Your task to perform on an android device: allow notifications from all sites in the chrome app Image 0: 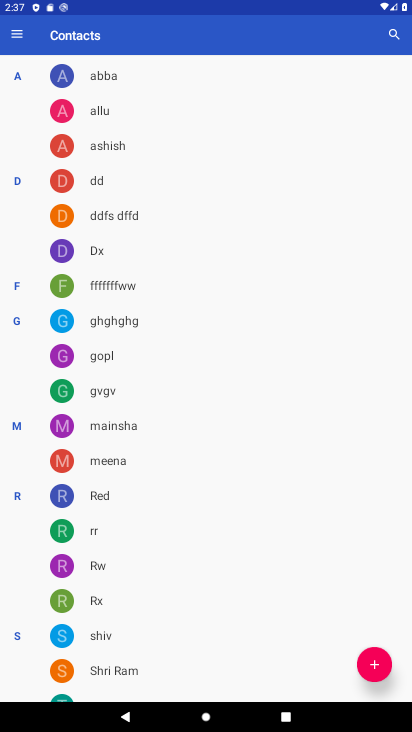
Step 0: press back button
Your task to perform on an android device: allow notifications from all sites in the chrome app Image 1: 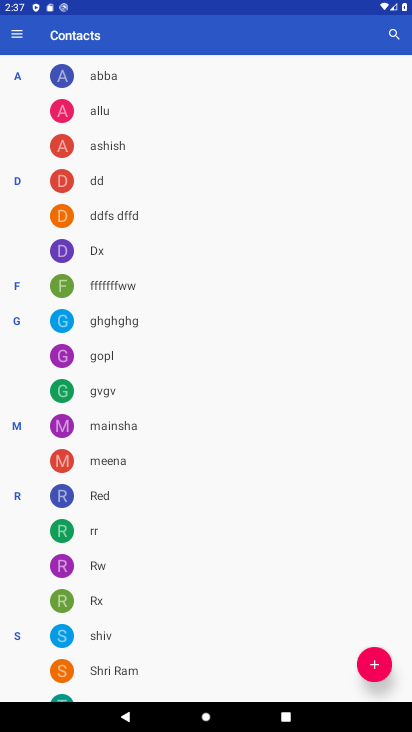
Step 1: press back button
Your task to perform on an android device: allow notifications from all sites in the chrome app Image 2: 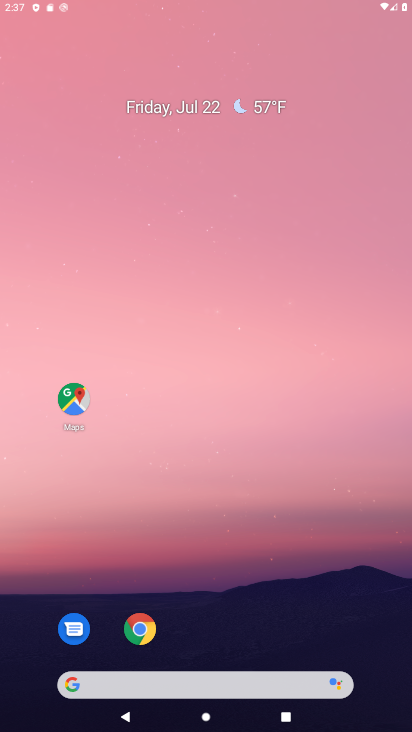
Step 2: press back button
Your task to perform on an android device: allow notifications from all sites in the chrome app Image 3: 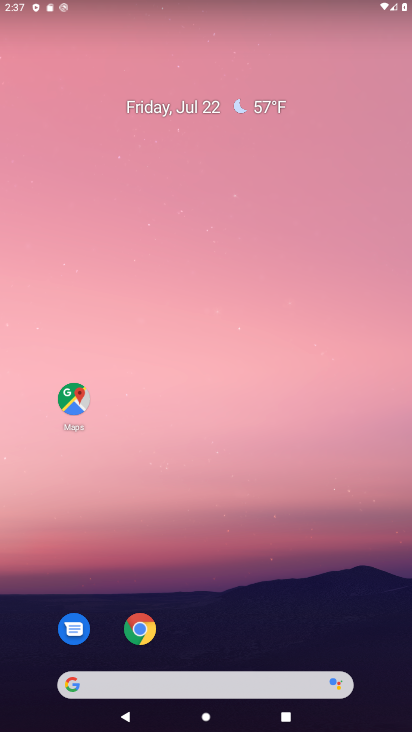
Step 3: press home button
Your task to perform on an android device: allow notifications from all sites in the chrome app Image 4: 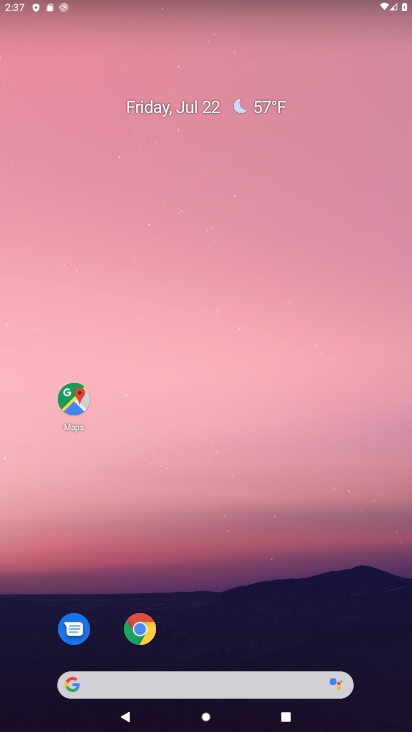
Step 4: drag from (228, 670) to (125, 183)
Your task to perform on an android device: allow notifications from all sites in the chrome app Image 5: 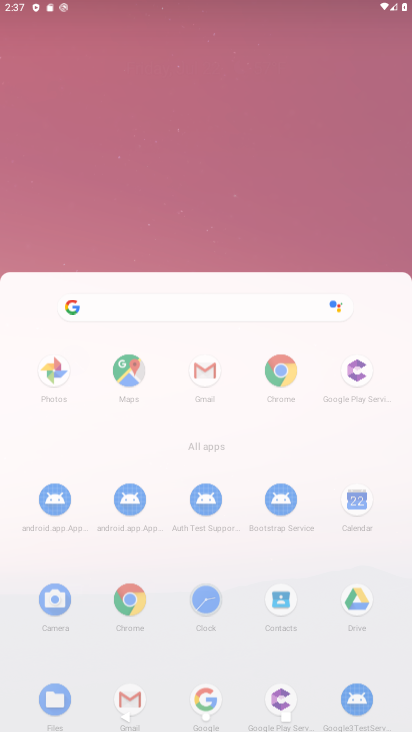
Step 5: drag from (172, 399) to (136, 84)
Your task to perform on an android device: allow notifications from all sites in the chrome app Image 6: 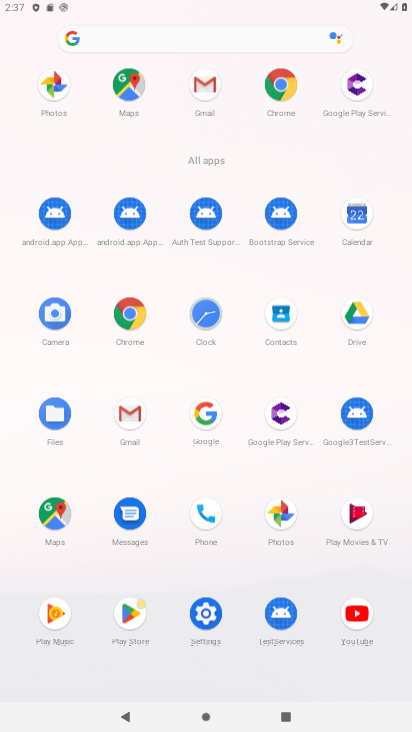
Step 6: drag from (176, 552) to (190, 193)
Your task to perform on an android device: allow notifications from all sites in the chrome app Image 7: 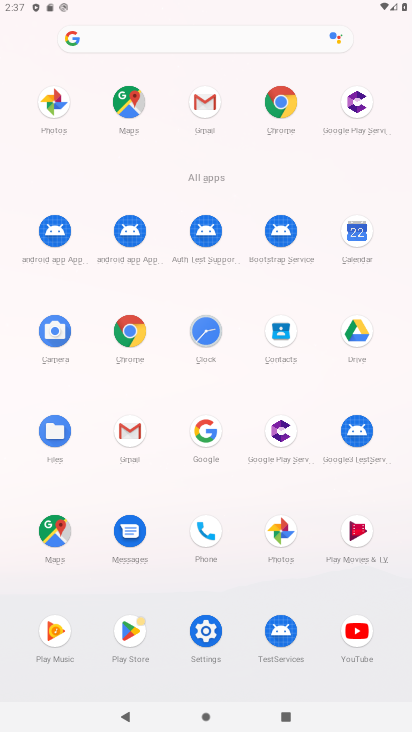
Step 7: click (266, 110)
Your task to perform on an android device: allow notifications from all sites in the chrome app Image 8: 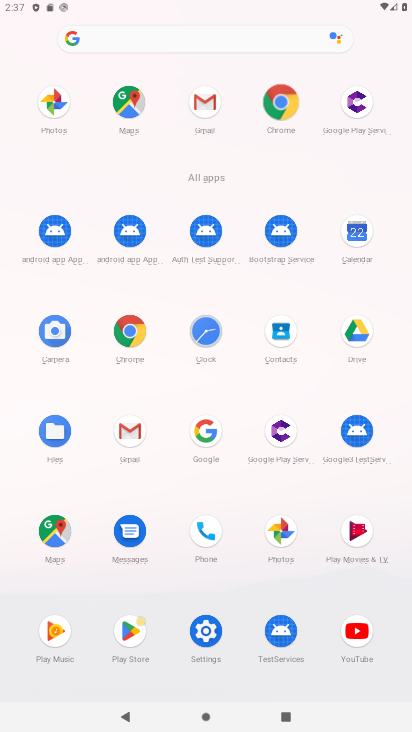
Step 8: click (270, 112)
Your task to perform on an android device: allow notifications from all sites in the chrome app Image 9: 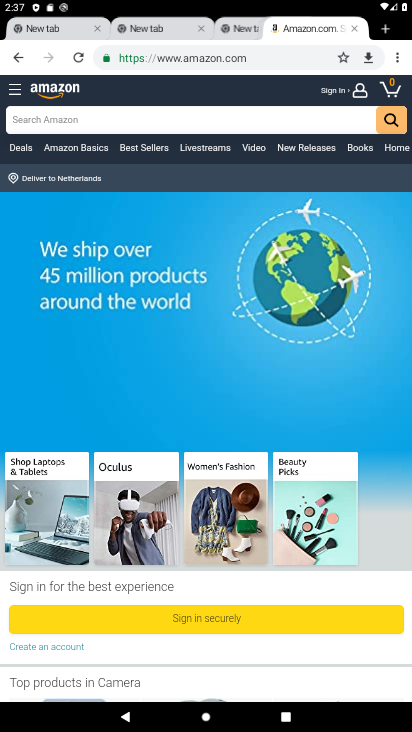
Step 9: click (397, 62)
Your task to perform on an android device: allow notifications from all sites in the chrome app Image 10: 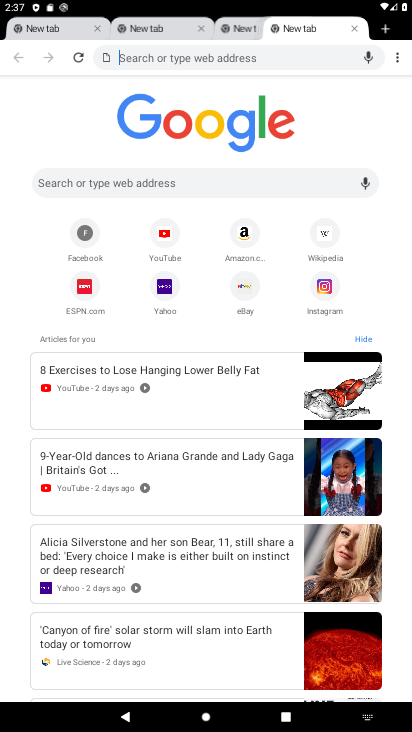
Step 10: drag from (396, 63) to (299, 202)
Your task to perform on an android device: allow notifications from all sites in the chrome app Image 11: 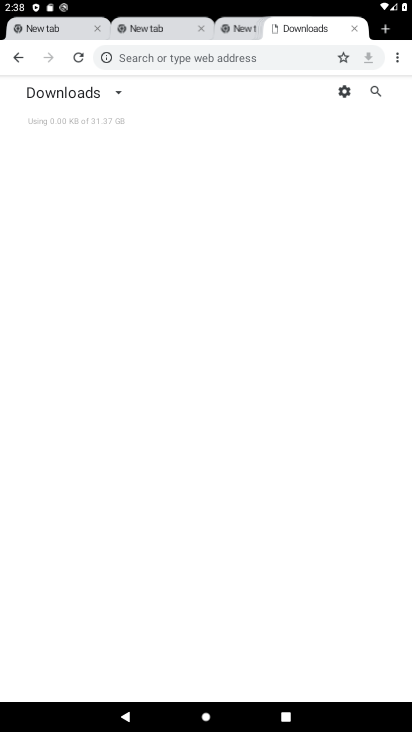
Step 11: click (26, 56)
Your task to perform on an android device: allow notifications from all sites in the chrome app Image 12: 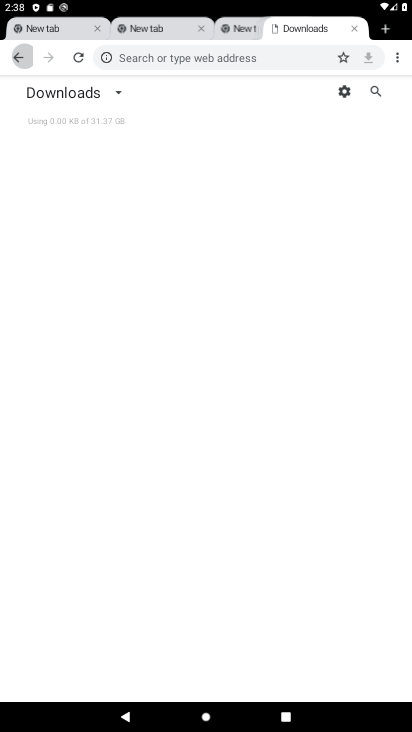
Step 12: click (26, 56)
Your task to perform on an android device: allow notifications from all sites in the chrome app Image 13: 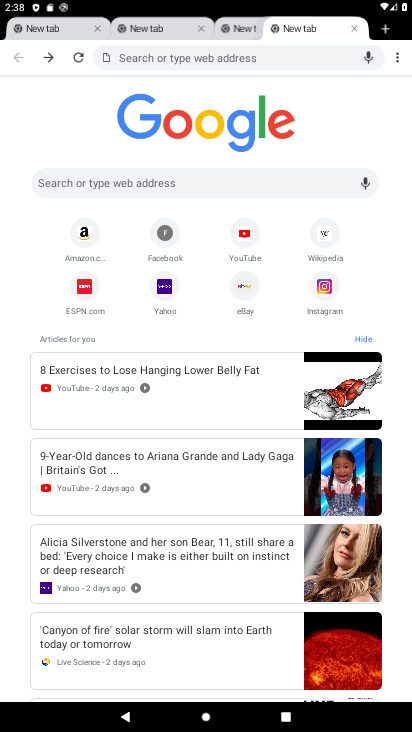
Step 13: drag from (397, 56) to (267, 243)
Your task to perform on an android device: allow notifications from all sites in the chrome app Image 14: 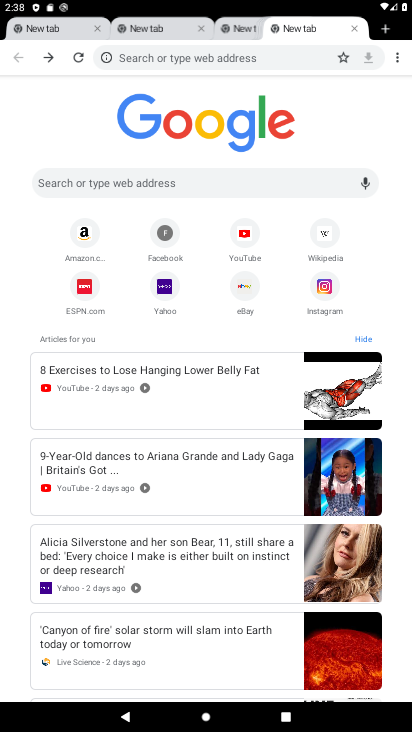
Step 14: click (394, 58)
Your task to perform on an android device: allow notifications from all sites in the chrome app Image 15: 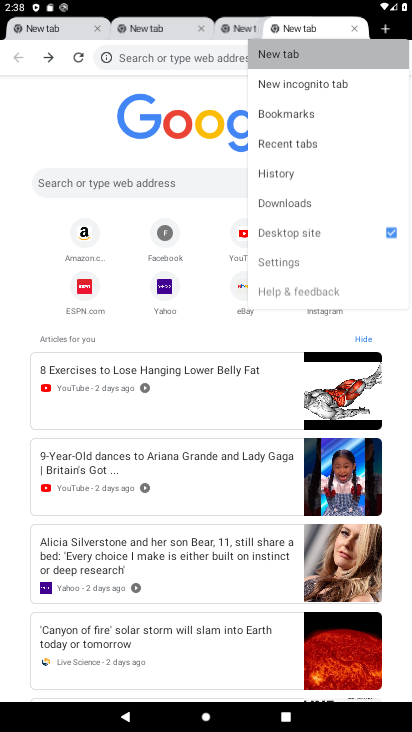
Step 15: click (392, 58)
Your task to perform on an android device: allow notifications from all sites in the chrome app Image 16: 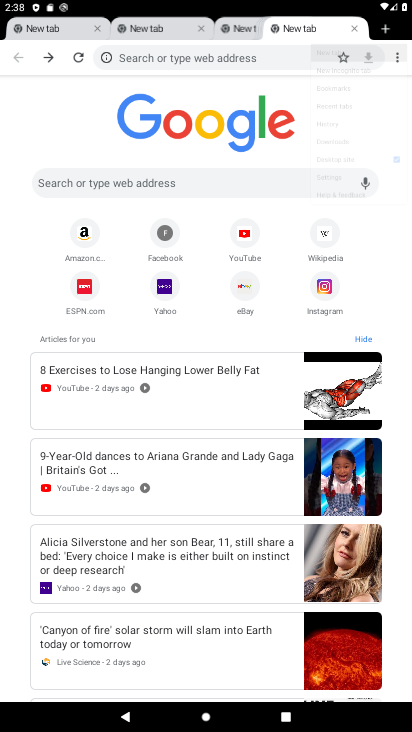
Step 16: drag from (391, 60) to (271, 253)
Your task to perform on an android device: allow notifications from all sites in the chrome app Image 17: 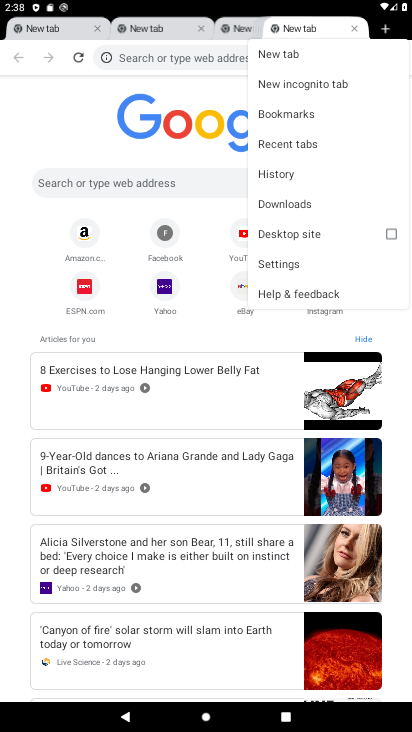
Step 17: click (268, 258)
Your task to perform on an android device: allow notifications from all sites in the chrome app Image 18: 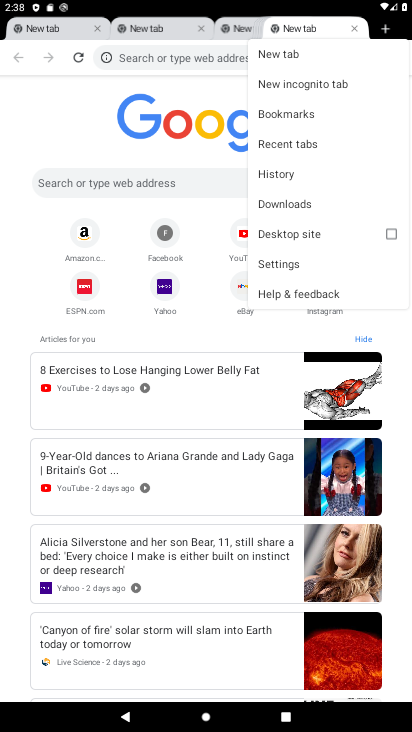
Step 18: click (268, 258)
Your task to perform on an android device: allow notifications from all sites in the chrome app Image 19: 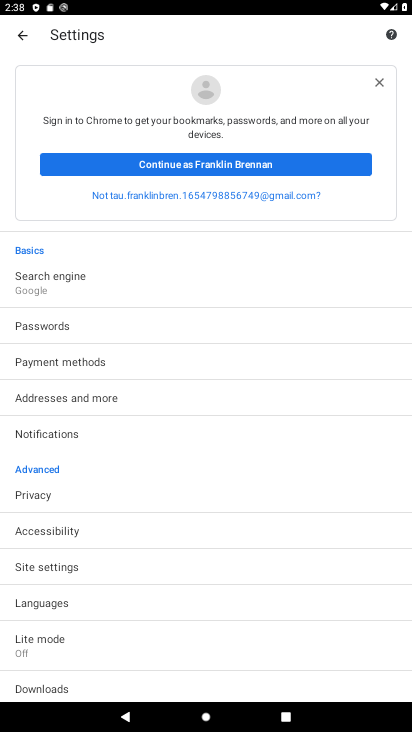
Step 19: drag from (164, 353) to (125, 76)
Your task to perform on an android device: allow notifications from all sites in the chrome app Image 20: 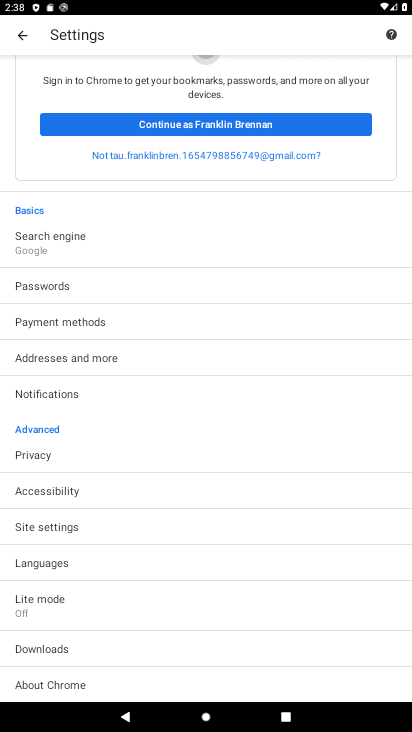
Step 20: click (121, 147)
Your task to perform on an android device: allow notifications from all sites in the chrome app Image 21: 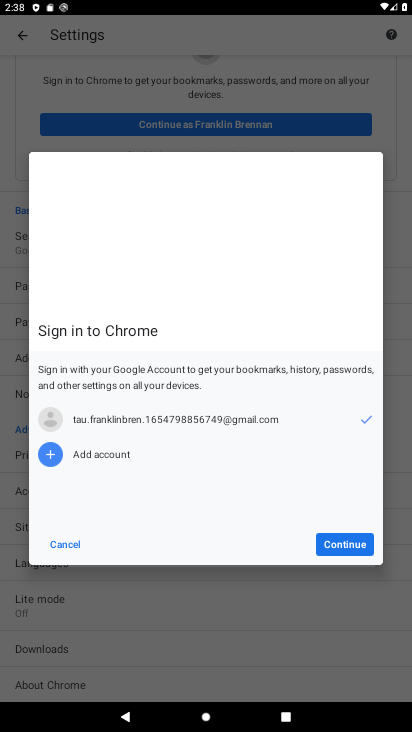
Step 21: click (73, 540)
Your task to perform on an android device: allow notifications from all sites in the chrome app Image 22: 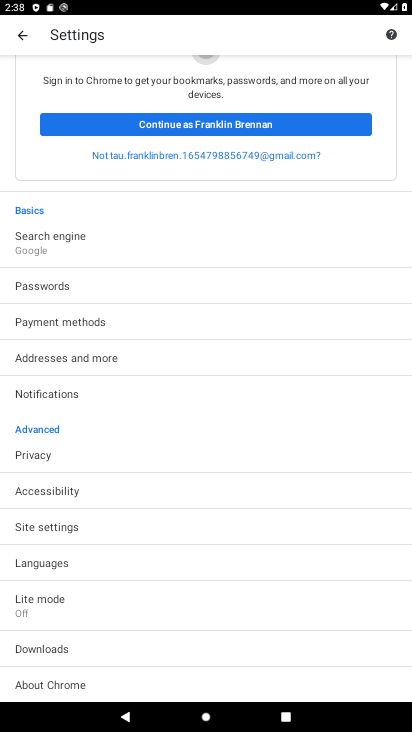
Step 22: click (70, 541)
Your task to perform on an android device: allow notifications from all sites in the chrome app Image 23: 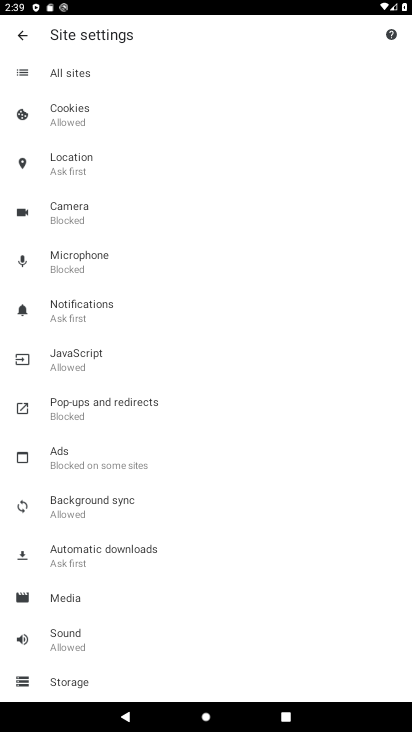
Step 23: click (60, 83)
Your task to perform on an android device: allow notifications from all sites in the chrome app Image 24: 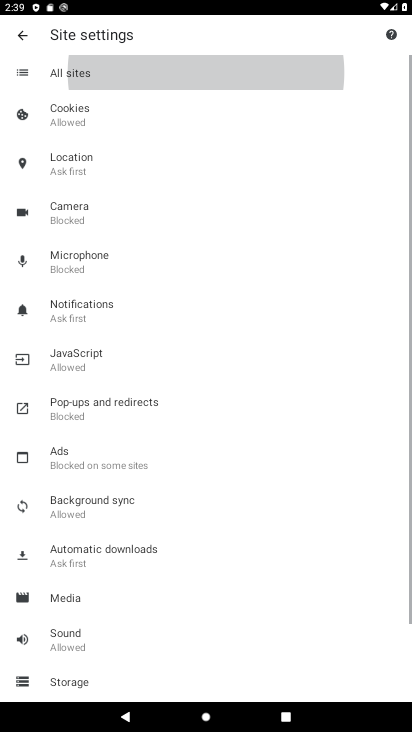
Step 24: click (60, 83)
Your task to perform on an android device: allow notifications from all sites in the chrome app Image 25: 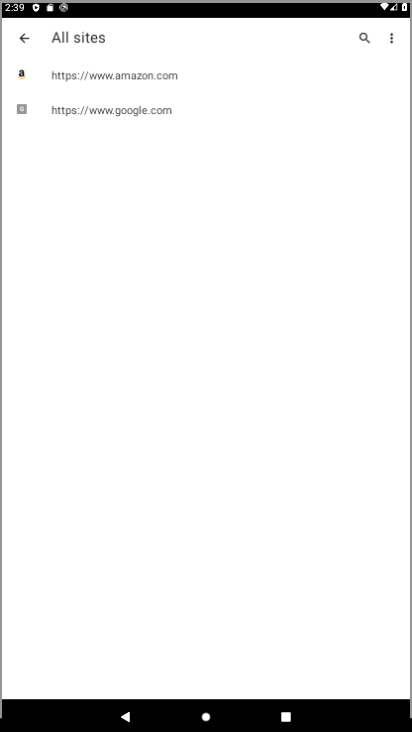
Step 25: click (61, 77)
Your task to perform on an android device: allow notifications from all sites in the chrome app Image 26: 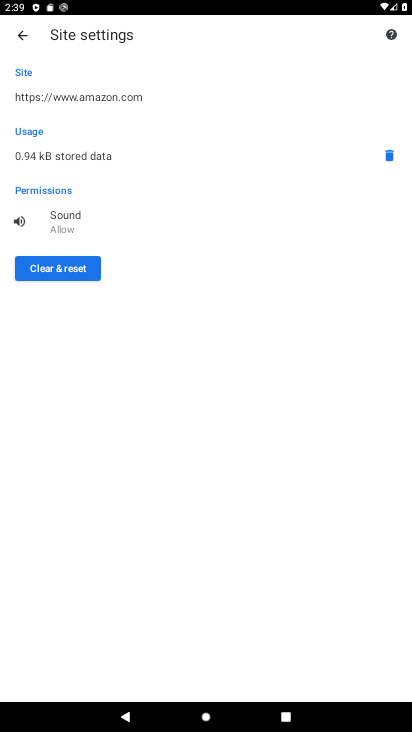
Step 26: task complete